Your task to perform on an android device: Go to notification settings Image 0: 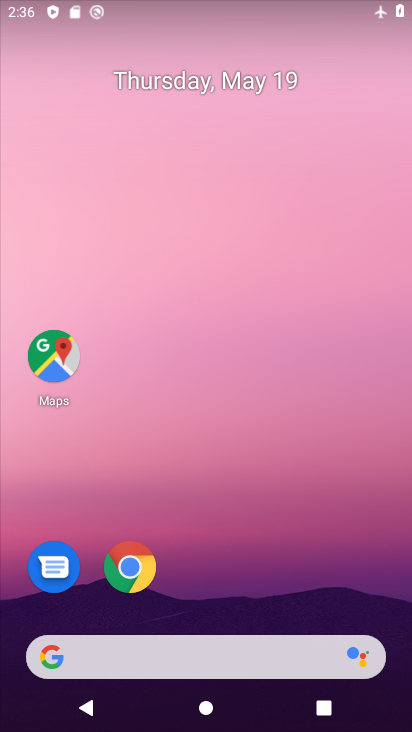
Step 0: drag from (210, 625) to (306, 63)
Your task to perform on an android device: Go to notification settings Image 1: 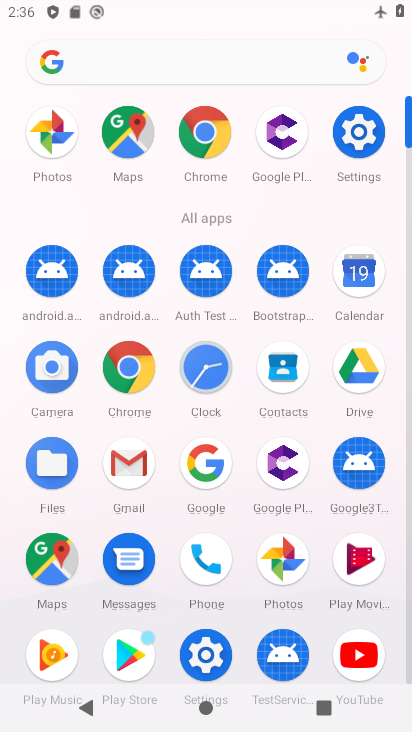
Step 1: click (373, 132)
Your task to perform on an android device: Go to notification settings Image 2: 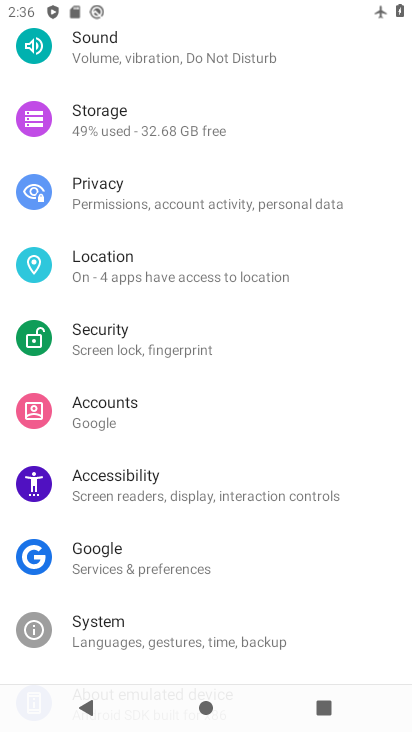
Step 2: drag from (166, 245) to (151, 567)
Your task to perform on an android device: Go to notification settings Image 3: 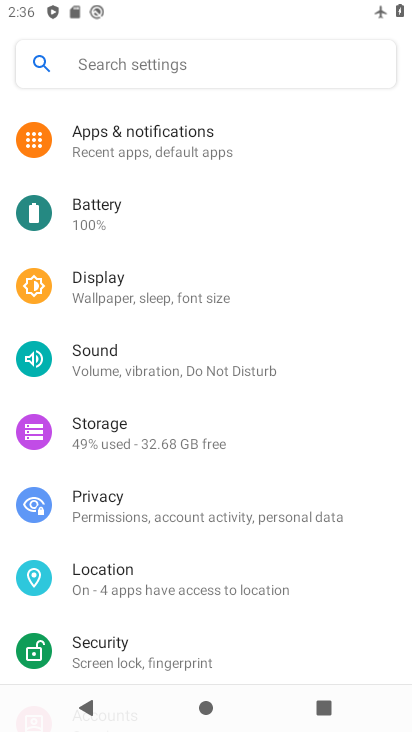
Step 3: click (101, 149)
Your task to perform on an android device: Go to notification settings Image 4: 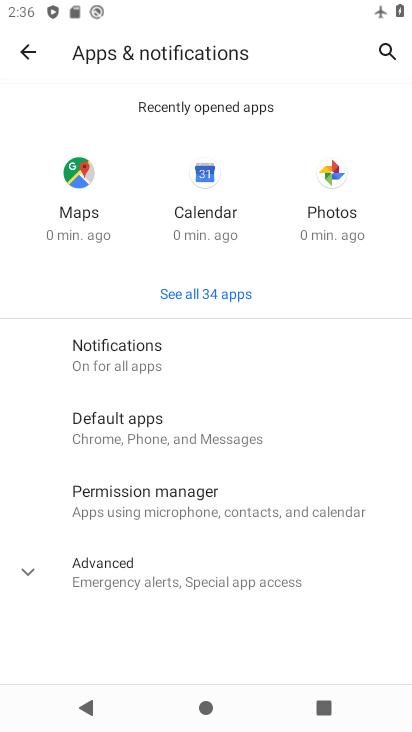
Step 4: click (167, 357)
Your task to perform on an android device: Go to notification settings Image 5: 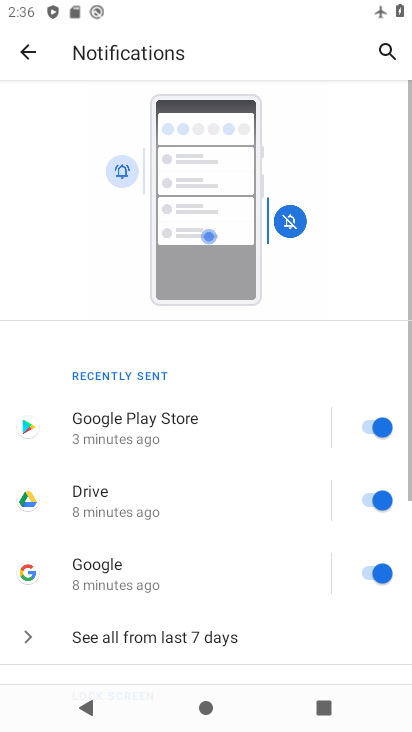
Step 5: drag from (240, 537) to (171, 75)
Your task to perform on an android device: Go to notification settings Image 6: 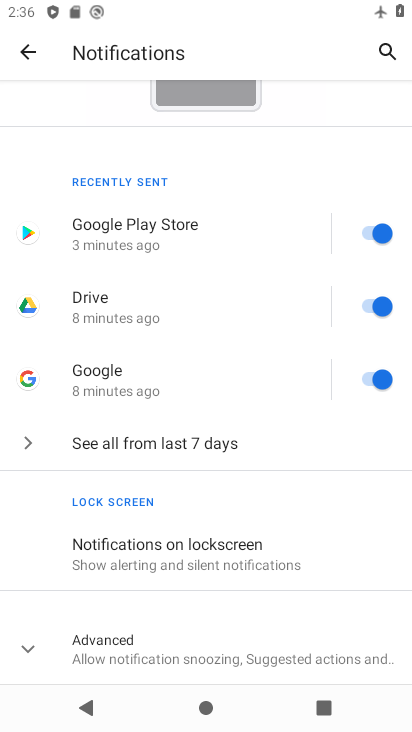
Step 6: click (236, 640)
Your task to perform on an android device: Go to notification settings Image 7: 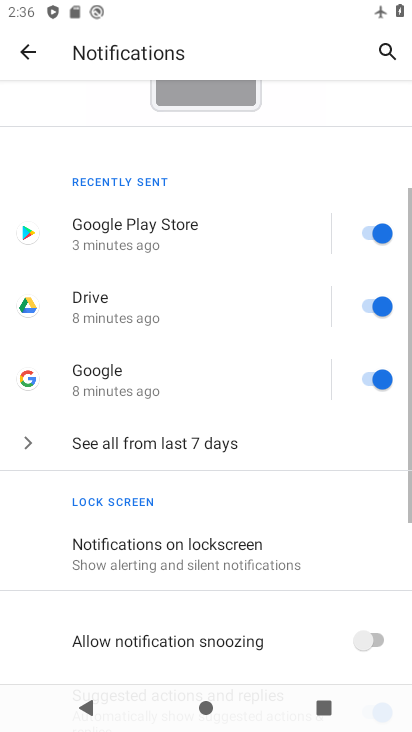
Step 7: task complete